Your task to perform on an android device: Show me the alarms in the clock app Image 0: 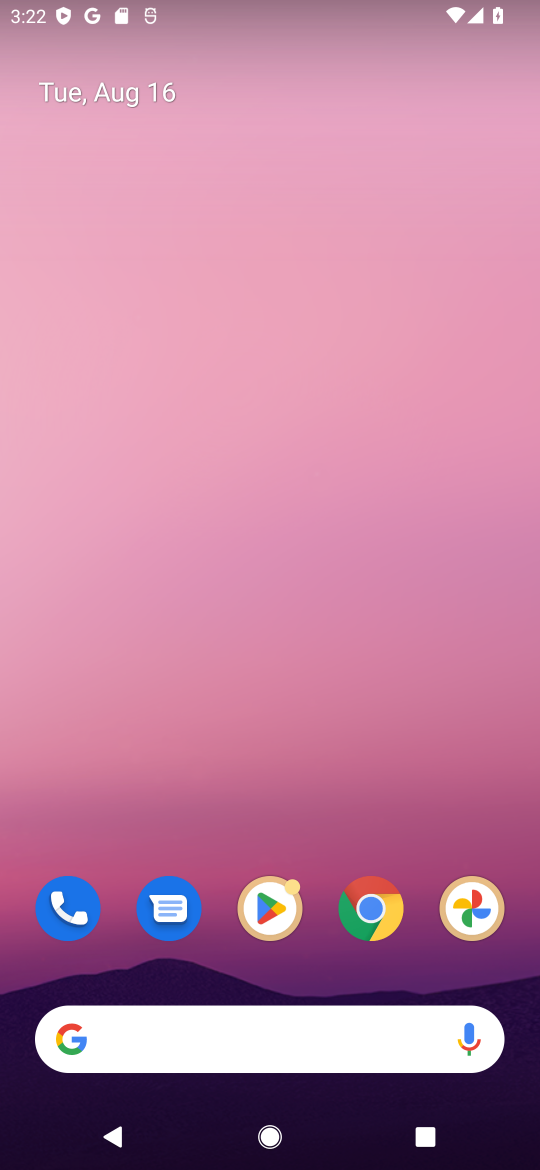
Step 0: drag from (285, 903) to (219, 38)
Your task to perform on an android device: Show me the alarms in the clock app Image 1: 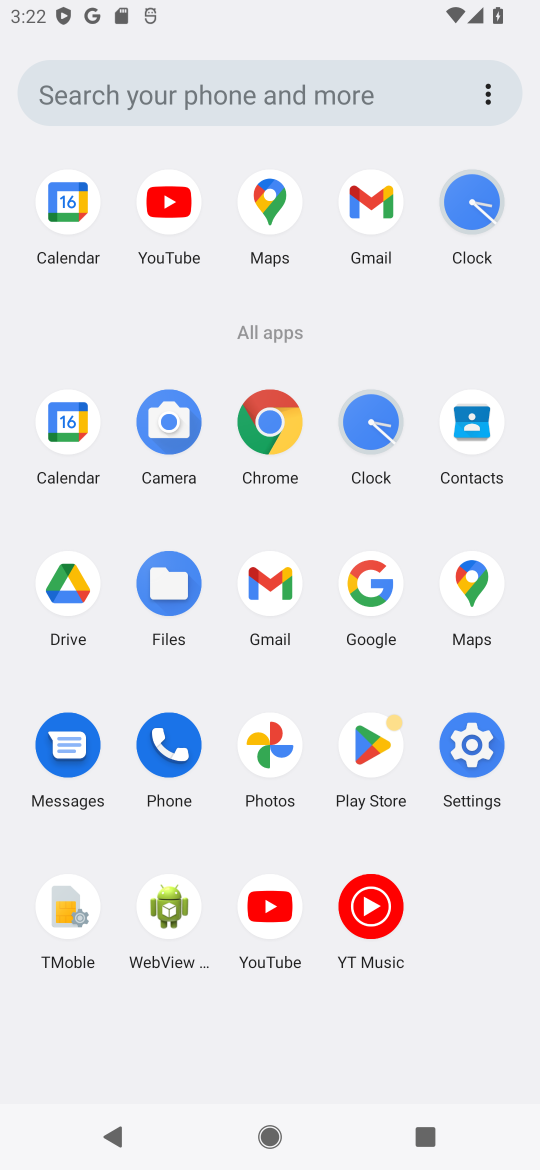
Step 1: click (463, 194)
Your task to perform on an android device: Show me the alarms in the clock app Image 2: 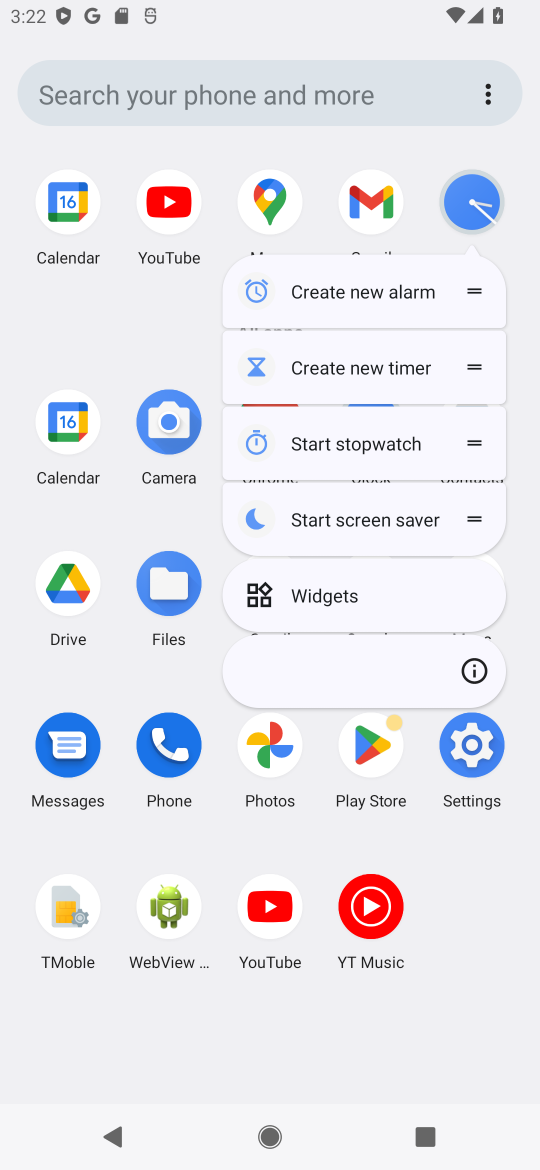
Step 2: click (465, 197)
Your task to perform on an android device: Show me the alarms in the clock app Image 3: 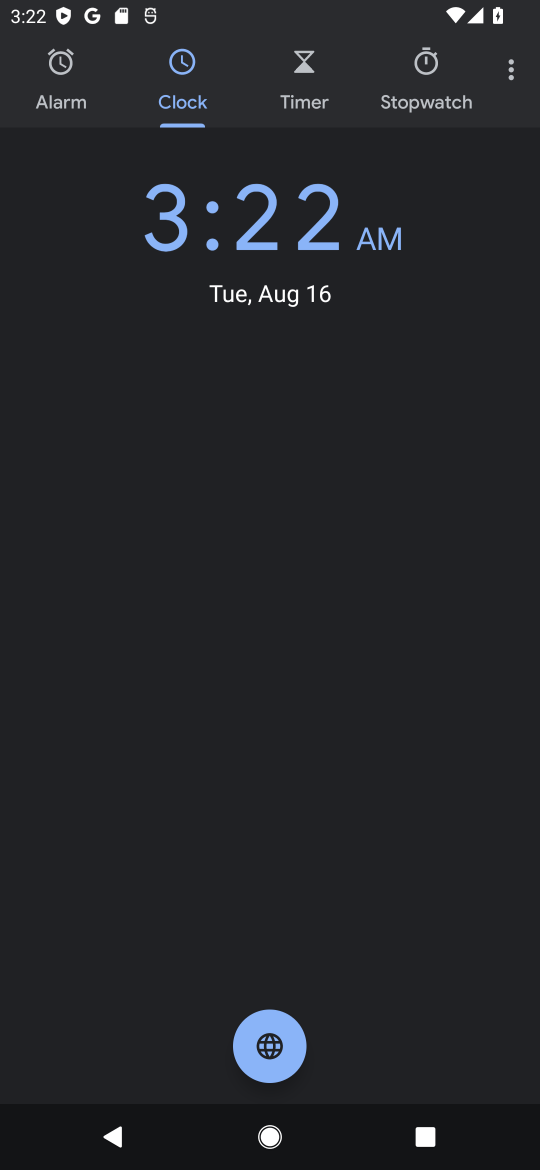
Step 3: click (78, 70)
Your task to perform on an android device: Show me the alarms in the clock app Image 4: 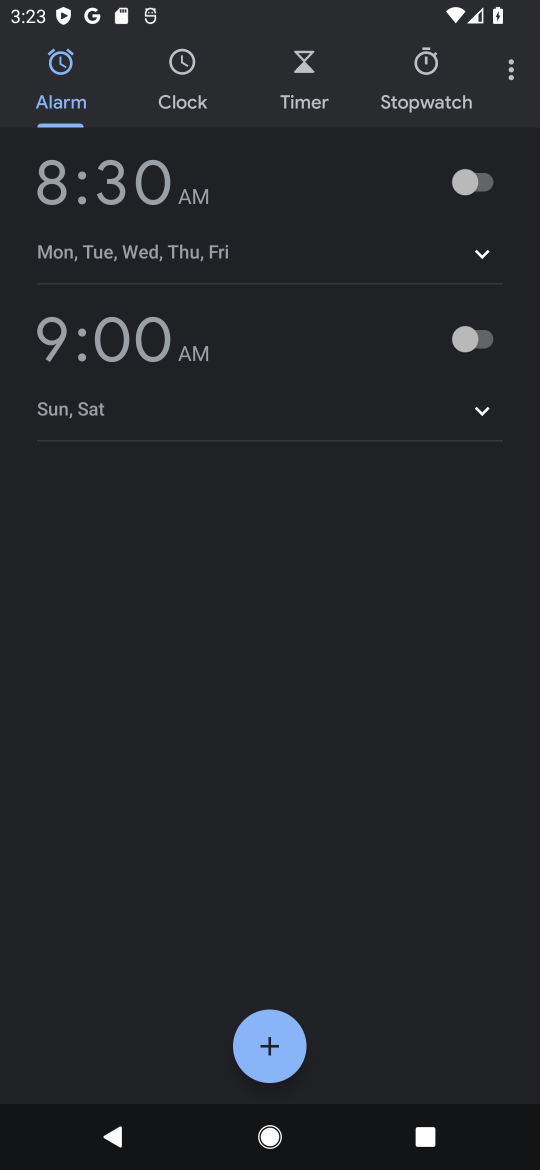
Step 4: task complete